Your task to perform on an android device: Open Google Maps Image 0: 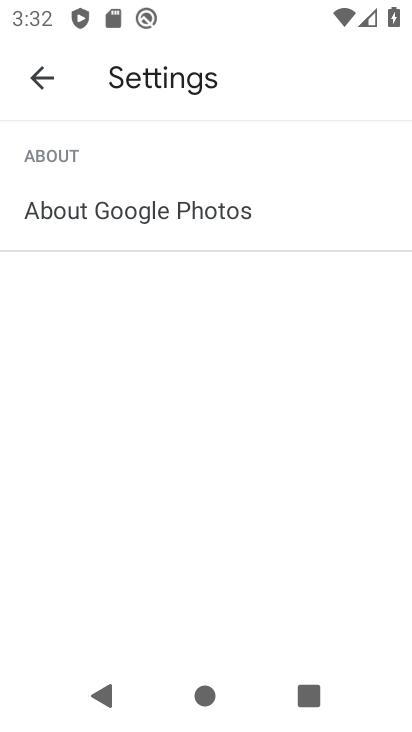
Step 0: press home button
Your task to perform on an android device: Open Google Maps Image 1: 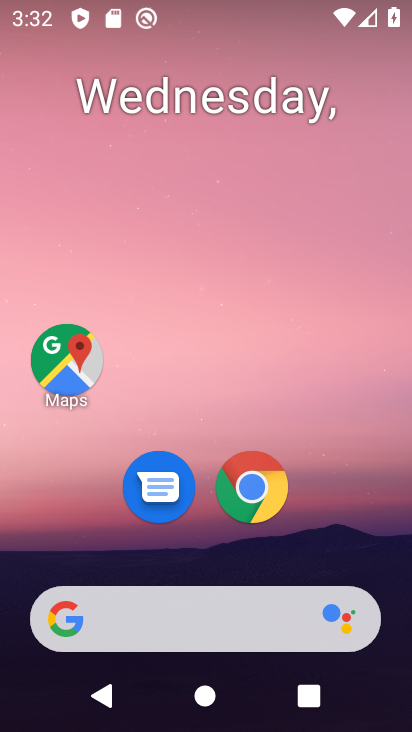
Step 1: click (58, 355)
Your task to perform on an android device: Open Google Maps Image 2: 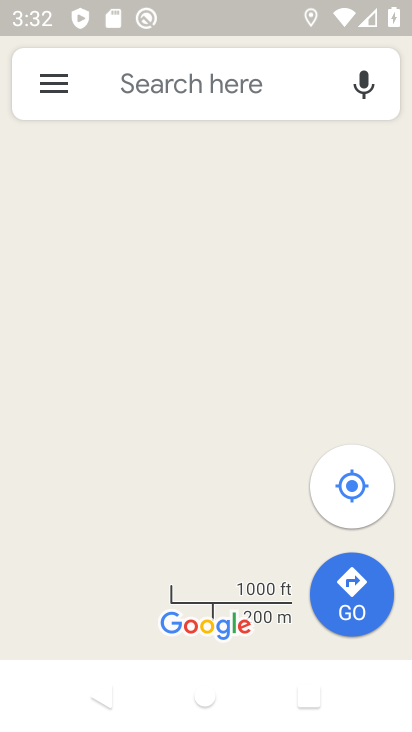
Step 2: task complete